Your task to perform on an android device: Open my contact list Image 0: 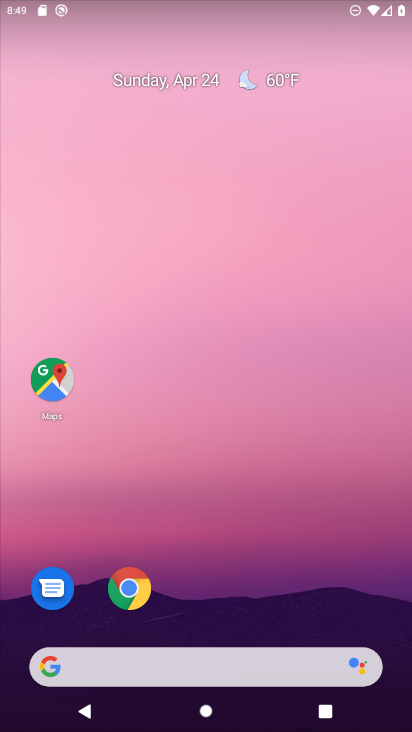
Step 0: drag from (273, 582) to (310, 114)
Your task to perform on an android device: Open my contact list Image 1: 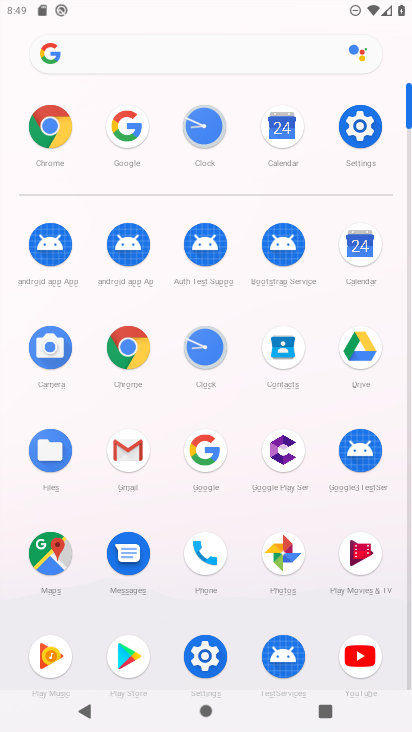
Step 1: click (286, 349)
Your task to perform on an android device: Open my contact list Image 2: 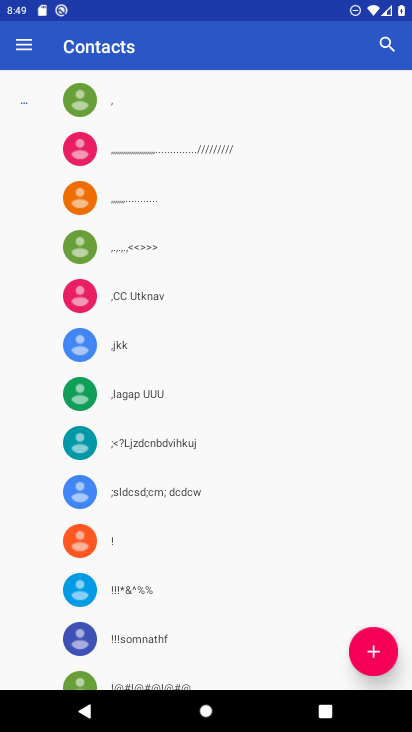
Step 2: task complete